Your task to perform on an android device: move an email to a new category in the gmail app Image 0: 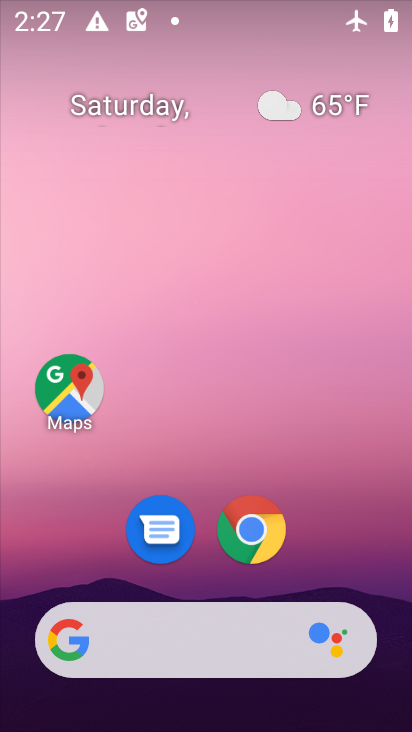
Step 0: drag from (385, 607) to (309, 99)
Your task to perform on an android device: move an email to a new category in the gmail app Image 1: 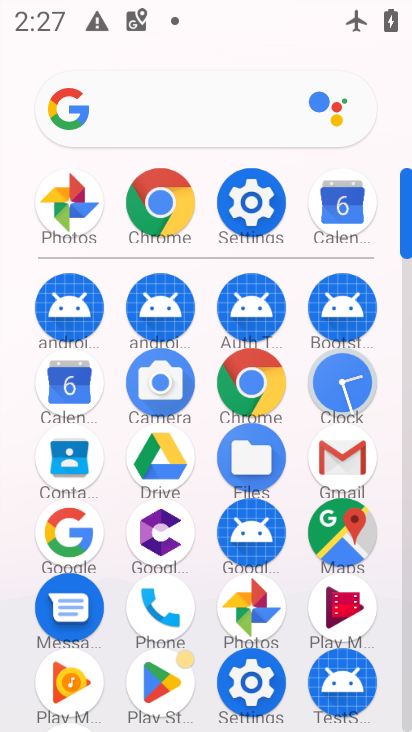
Step 1: click (347, 477)
Your task to perform on an android device: move an email to a new category in the gmail app Image 2: 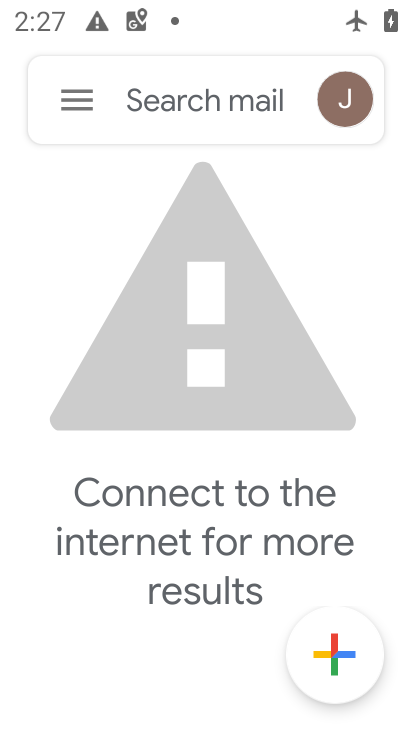
Step 2: click (81, 92)
Your task to perform on an android device: move an email to a new category in the gmail app Image 3: 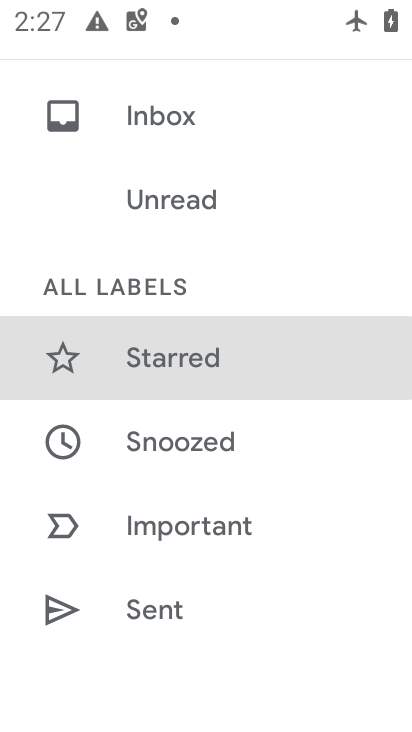
Step 3: drag from (258, 578) to (259, 80)
Your task to perform on an android device: move an email to a new category in the gmail app Image 4: 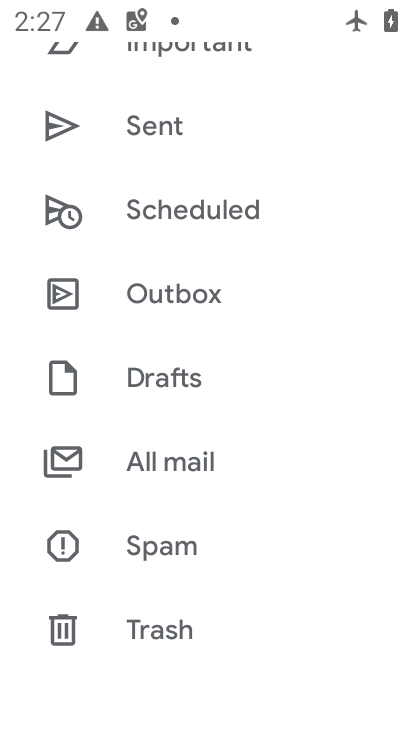
Step 4: click (228, 471)
Your task to perform on an android device: move an email to a new category in the gmail app Image 5: 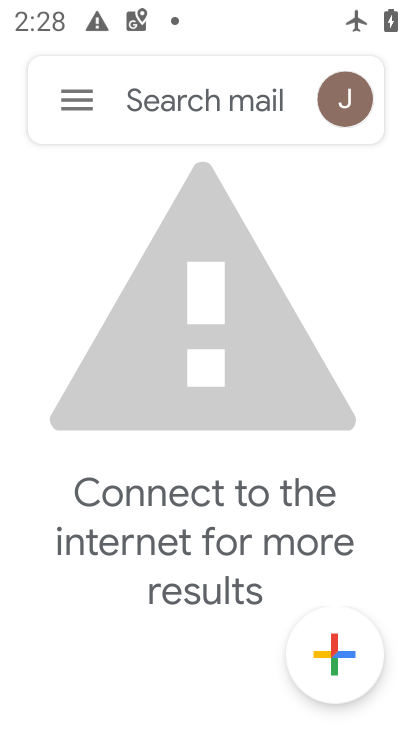
Step 5: task complete